Your task to perform on an android device: check battery use Image 0: 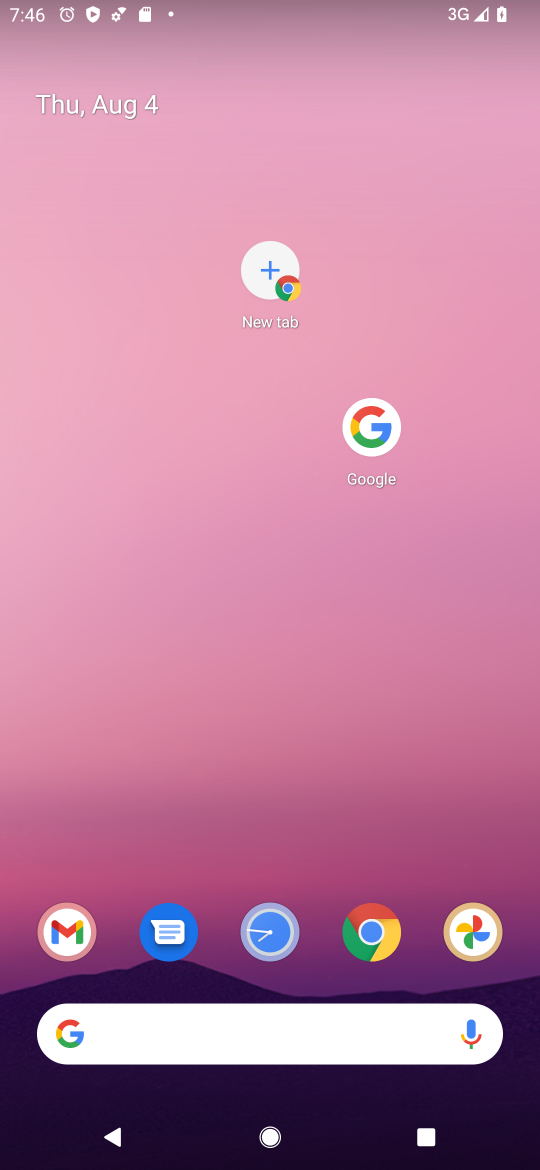
Step 0: click (503, 781)
Your task to perform on an android device: check battery use Image 1: 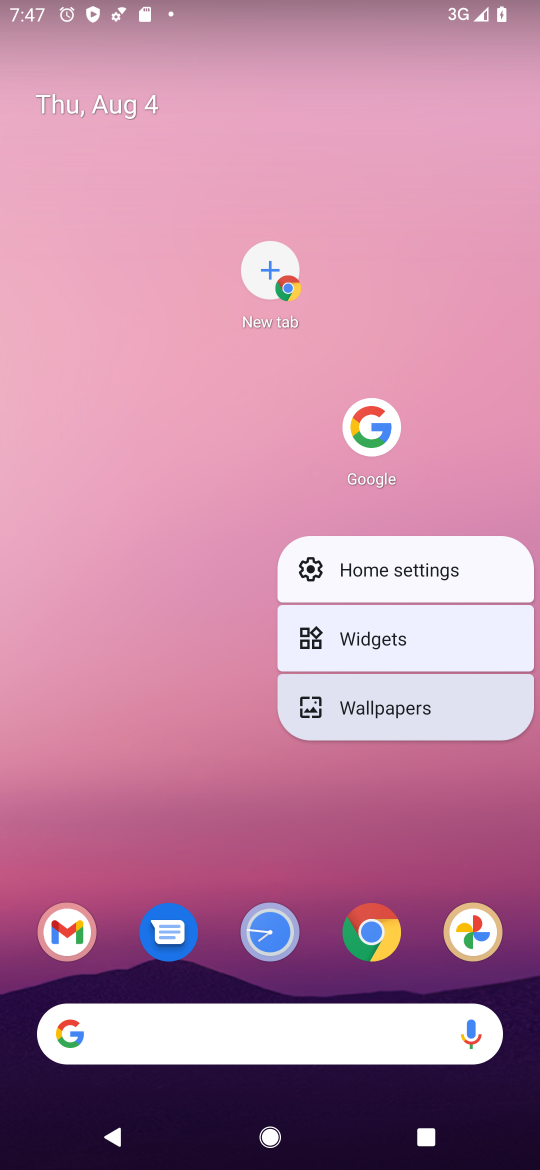
Step 1: drag from (374, 847) to (384, 45)
Your task to perform on an android device: check battery use Image 2: 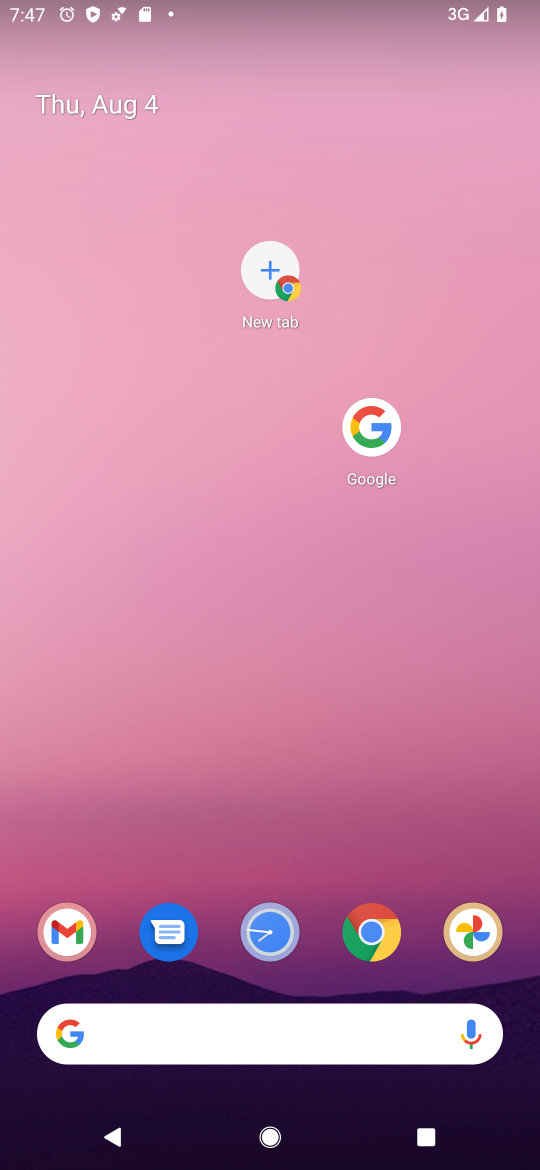
Step 2: drag from (151, 910) to (256, 534)
Your task to perform on an android device: check battery use Image 3: 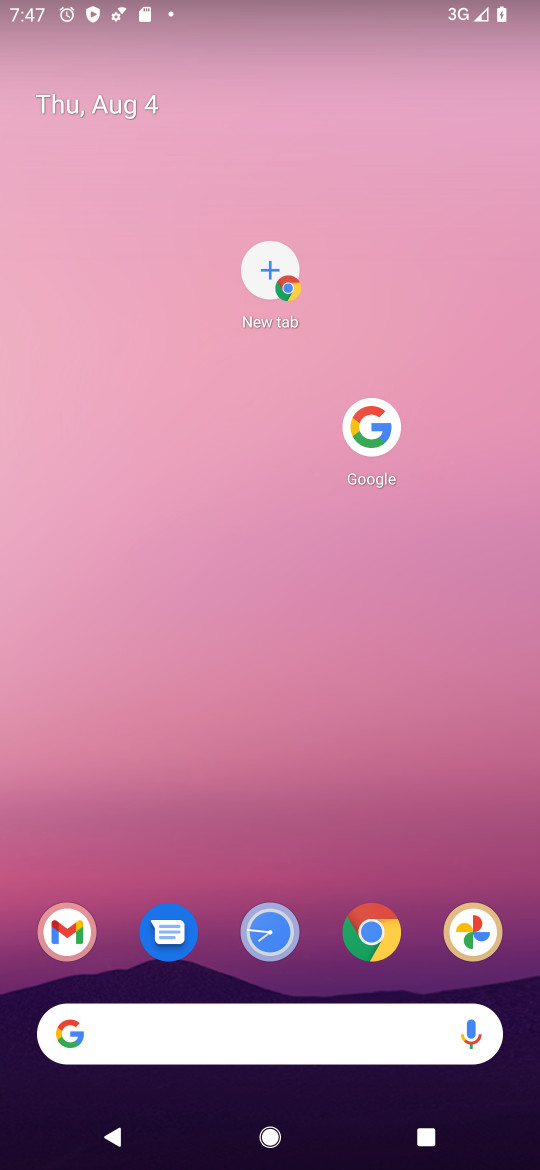
Step 3: drag from (377, 936) to (317, 380)
Your task to perform on an android device: check battery use Image 4: 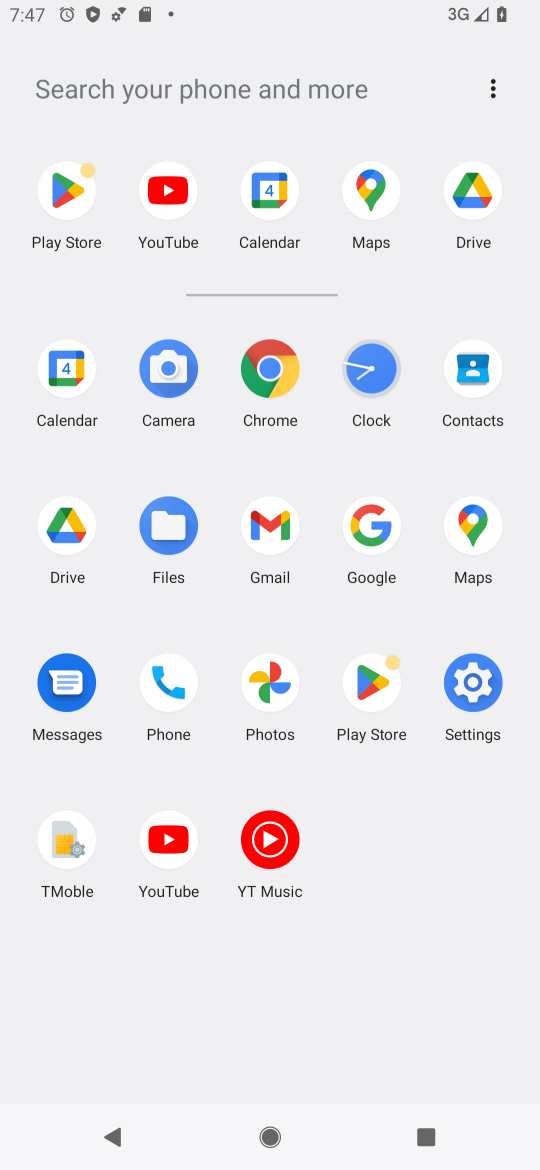
Step 4: drag from (278, 329) to (267, 235)
Your task to perform on an android device: check battery use Image 5: 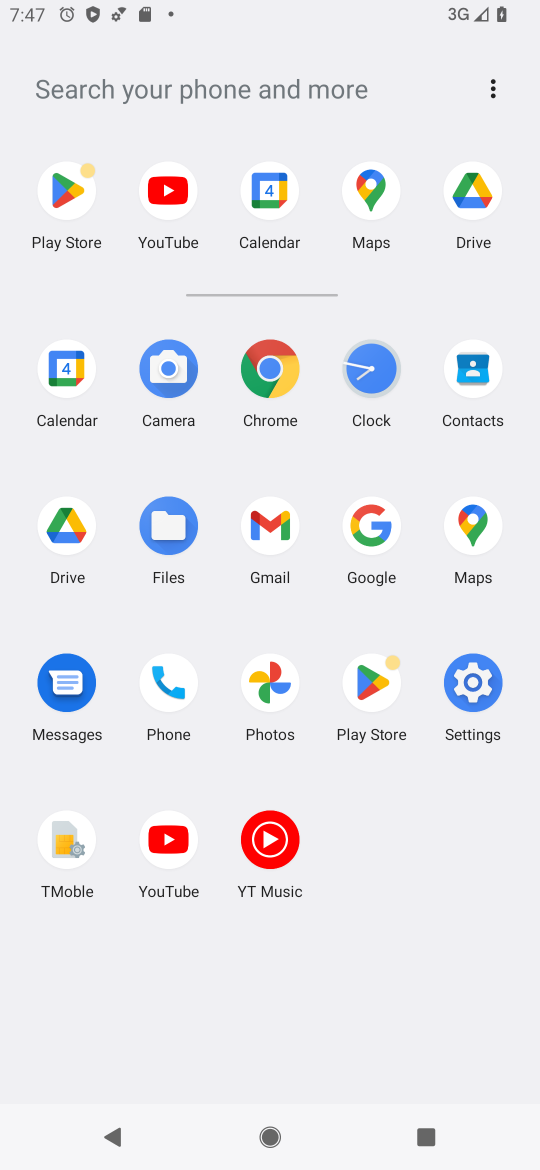
Step 5: click (465, 676)
Your task to perform on an android device: check battery use Image 6: 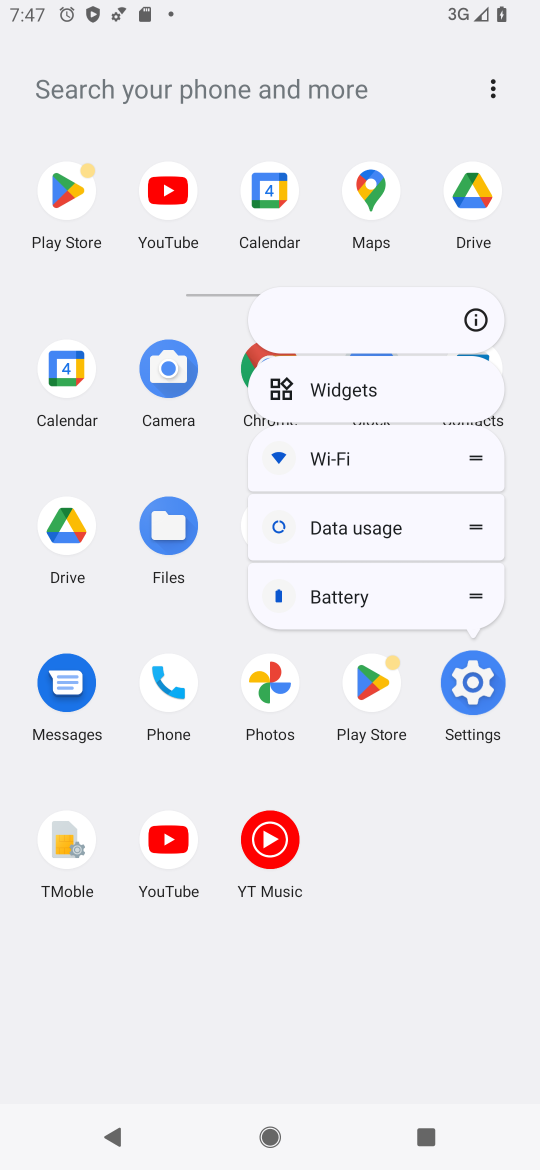
Step 6: click (473, 668)
Your task to perform on an android device: check battery use Image 7: 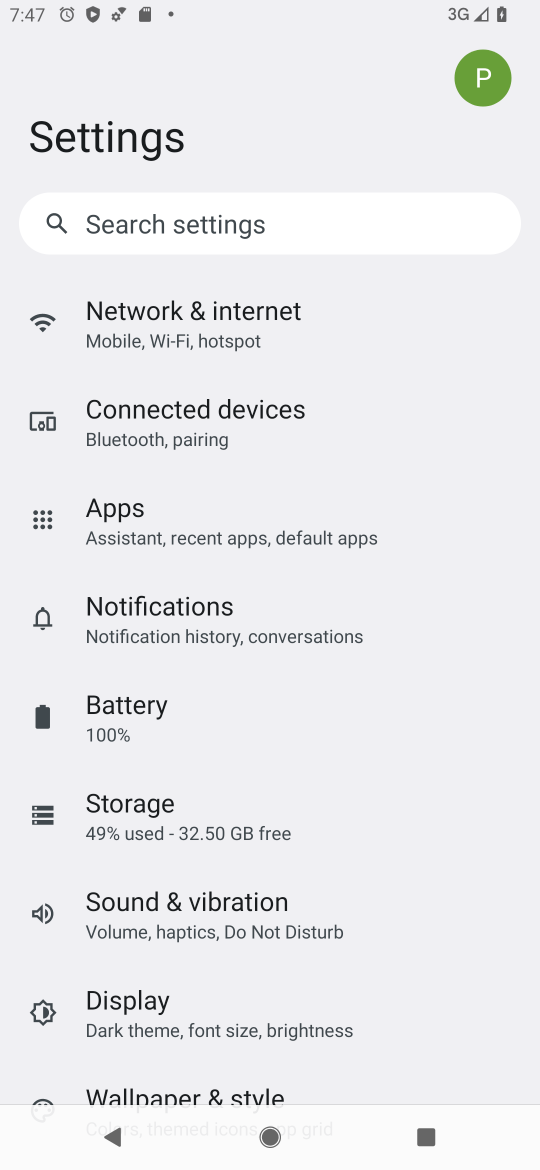
Step 7: click (294, 483)
Your task to perform on an android device: check battery use Image 8: 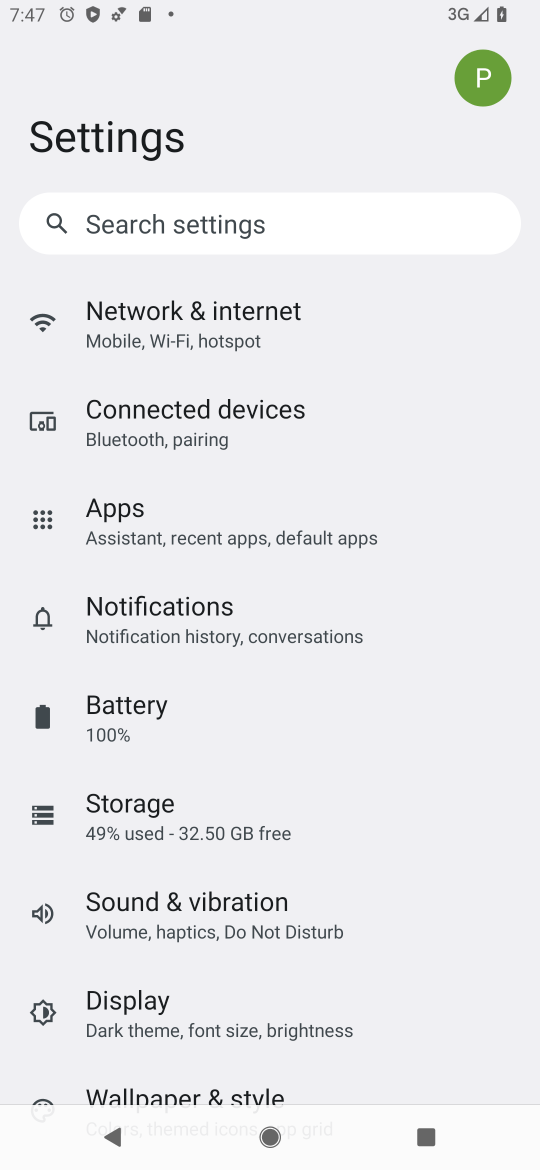
Step 8: drag from (352, 828) to (324, 474)
Your task to perform on an android device: check battery use Image 9: 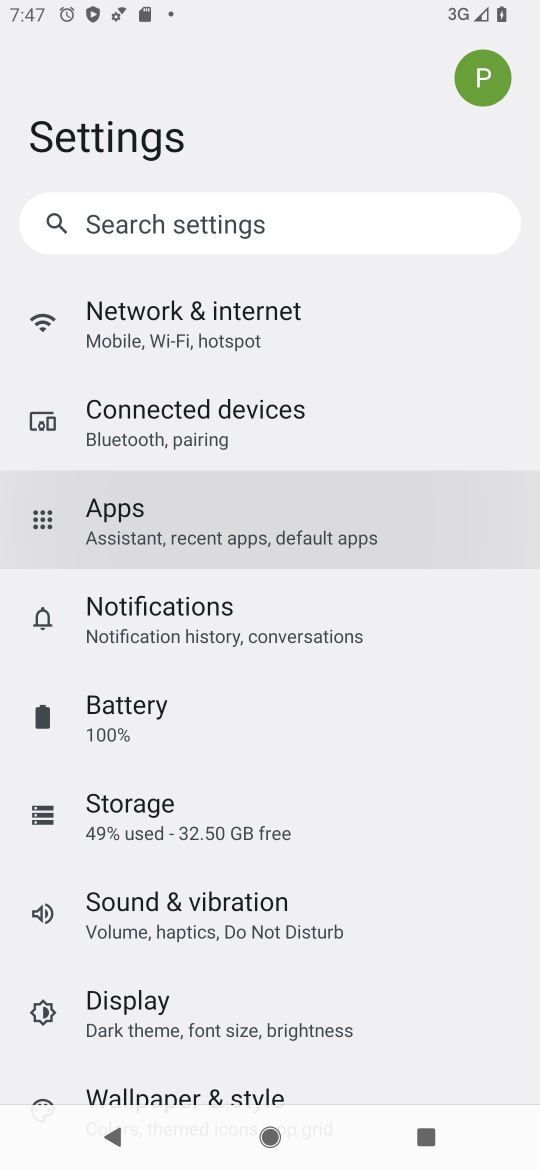
Step 9: click (266, 399)
Your task to perform on an android device: check battery use Image 10: 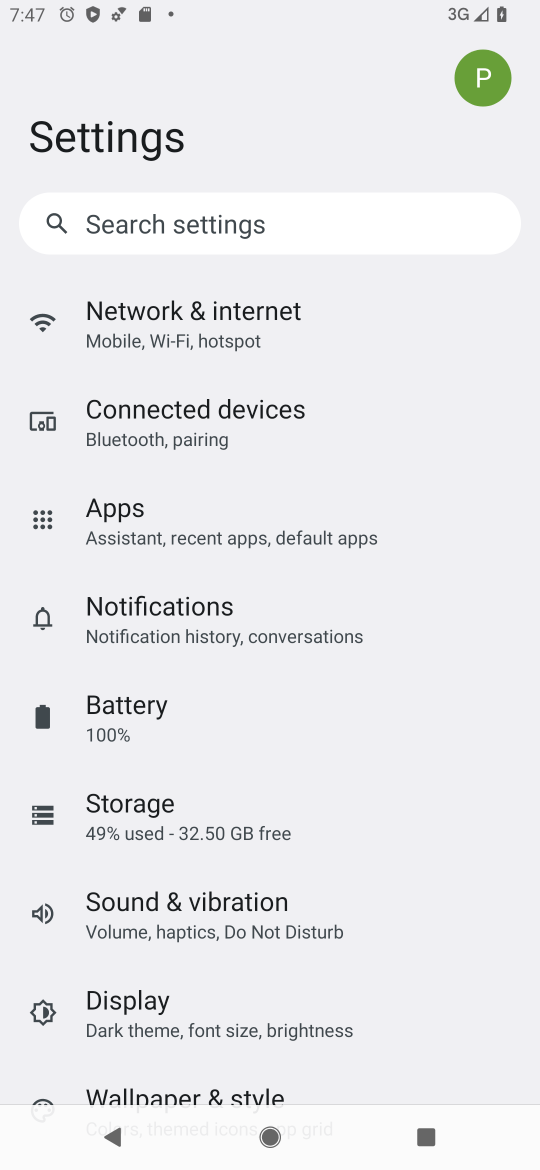
Step 10: drag from (387, 796) to (394, 332)
Your task to perform on an android device: check battery use Image 11: 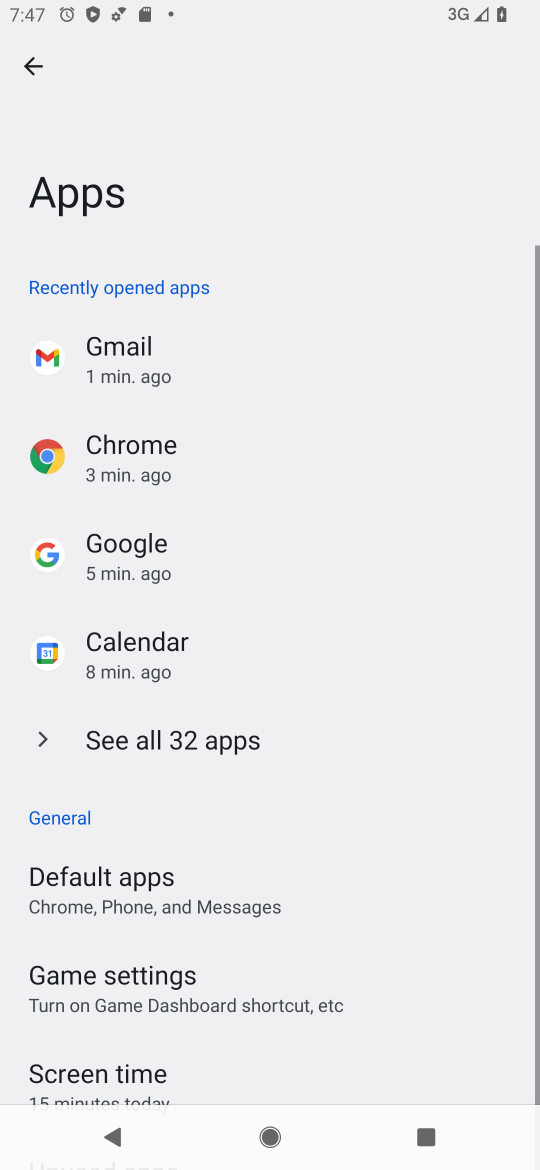
Step 11: click (322, 737)
Your task to perform on an android device: check battery use Image 12: 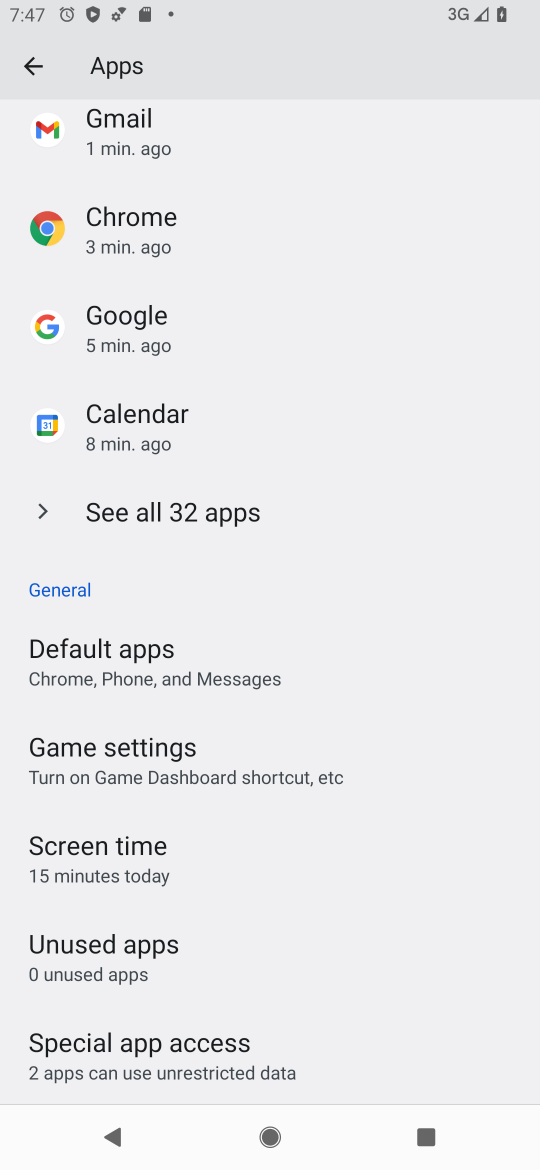
Step 12: drag from (172, 667) to (222, 1005)
Your task to perform on an android device: check battery use Image 13: 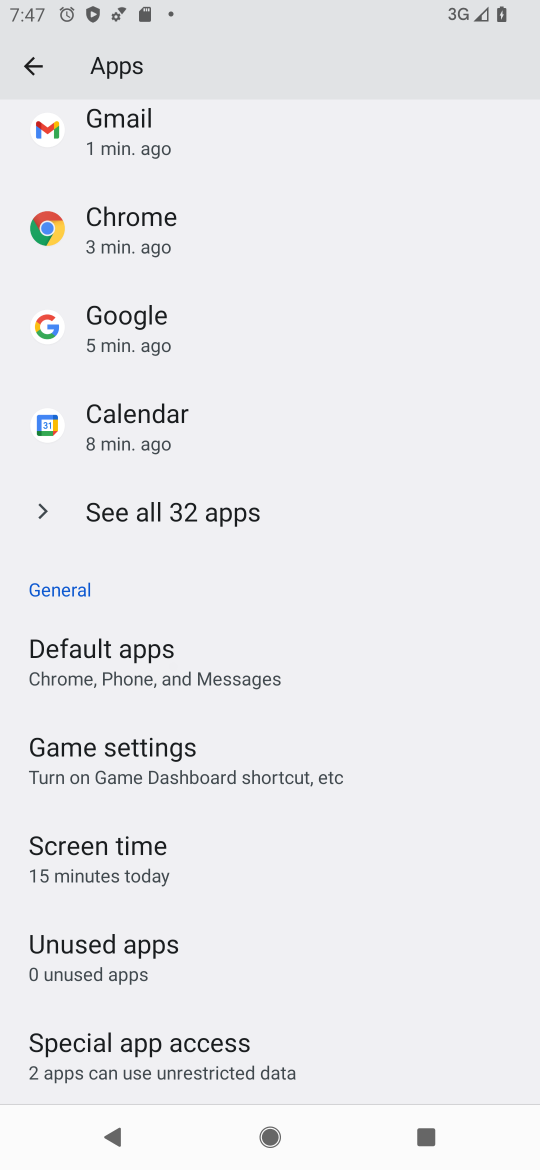
Step 13: click (212, 1016)
Your task to perform on an android device: check battery use Image 14: 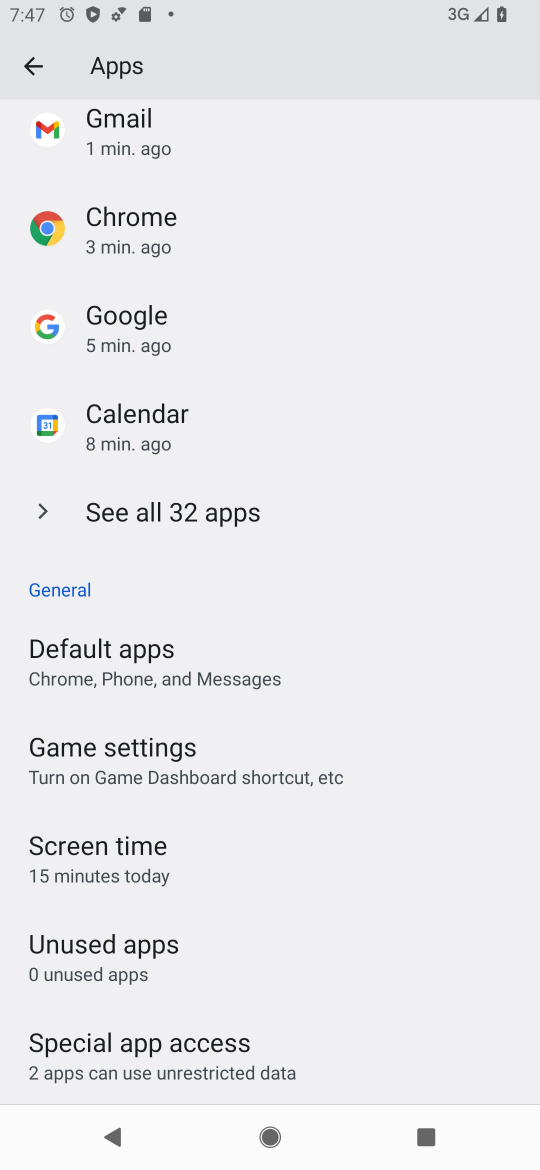
Step 14: click (225, 907)
Your task to perform on an android device: check battery use Image 15: 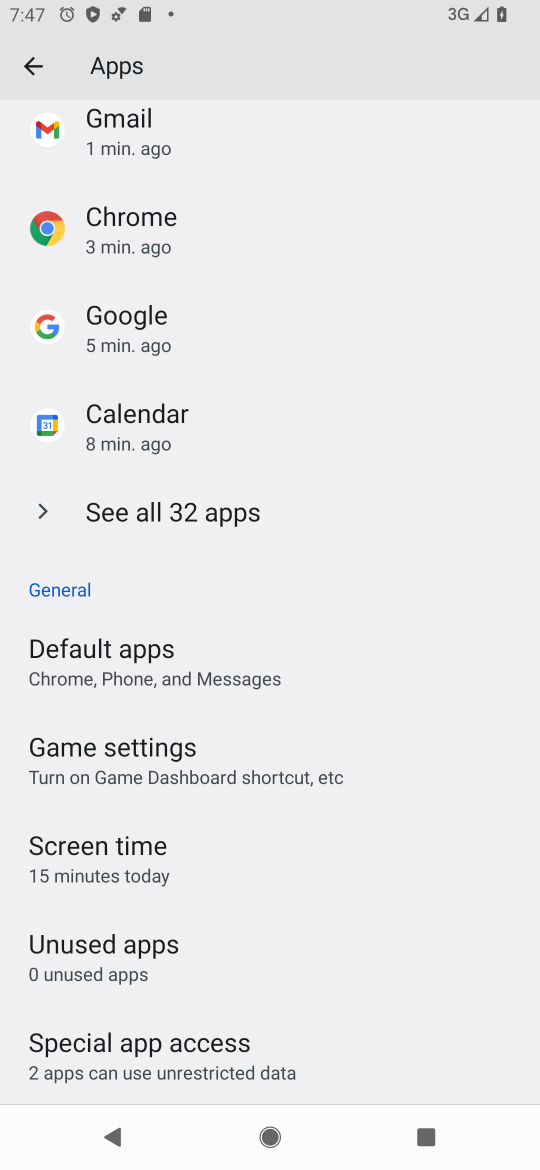
Step 15: drag from (238, 546) to (403, 958)
Your task to perform on an android device: check battery use Image 16: 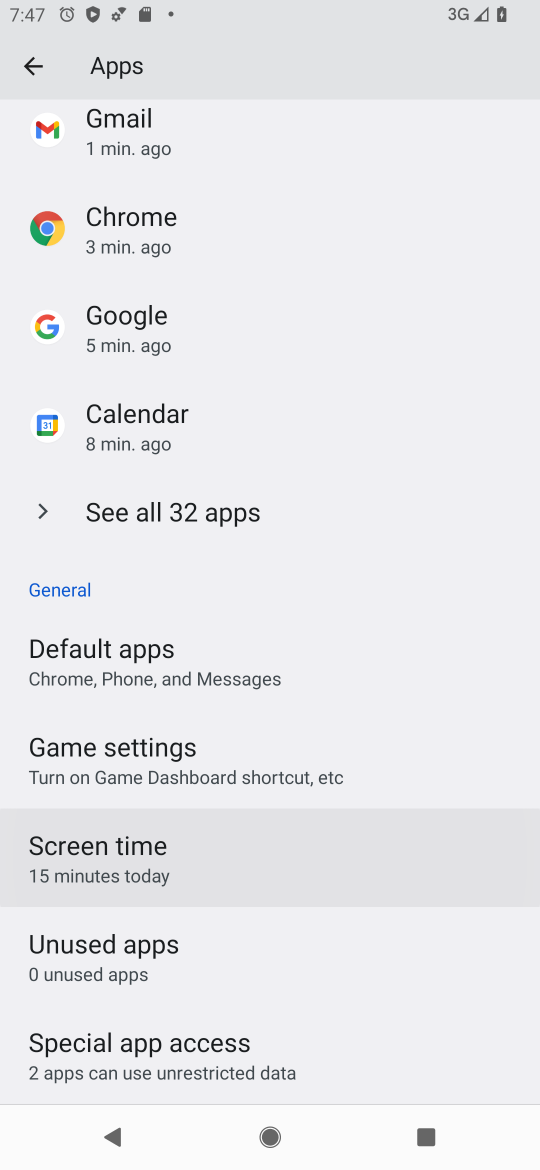
Step 16: drag from (202, 336) to (260, 859)
Your task to perform on an android device: check battery use Image 17: 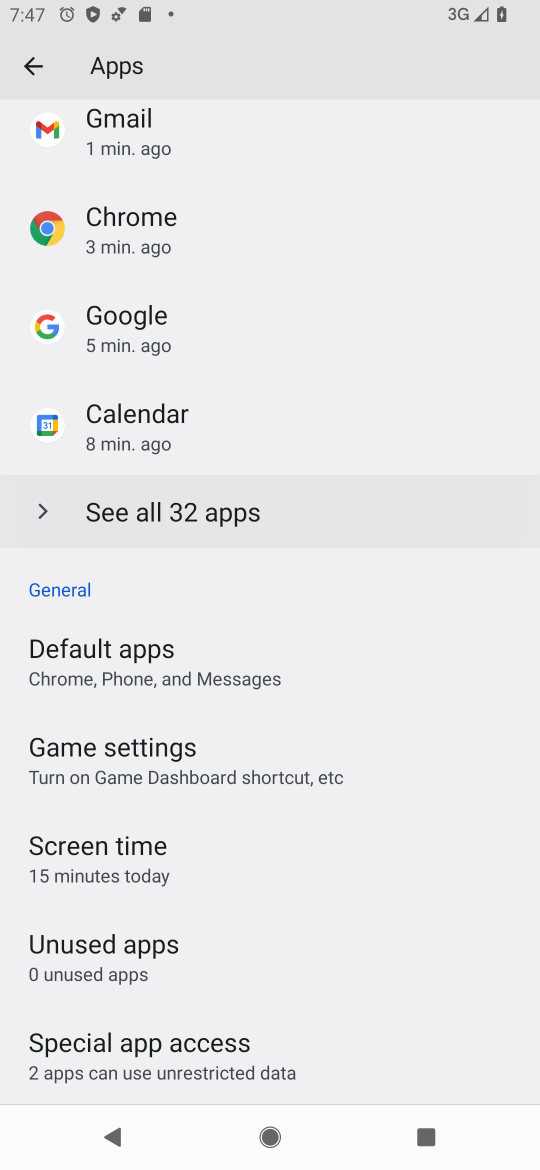
Step 17: drag from (241, 871) to (194, 930)
Your task to perform on an android device: check battery use Image 18: 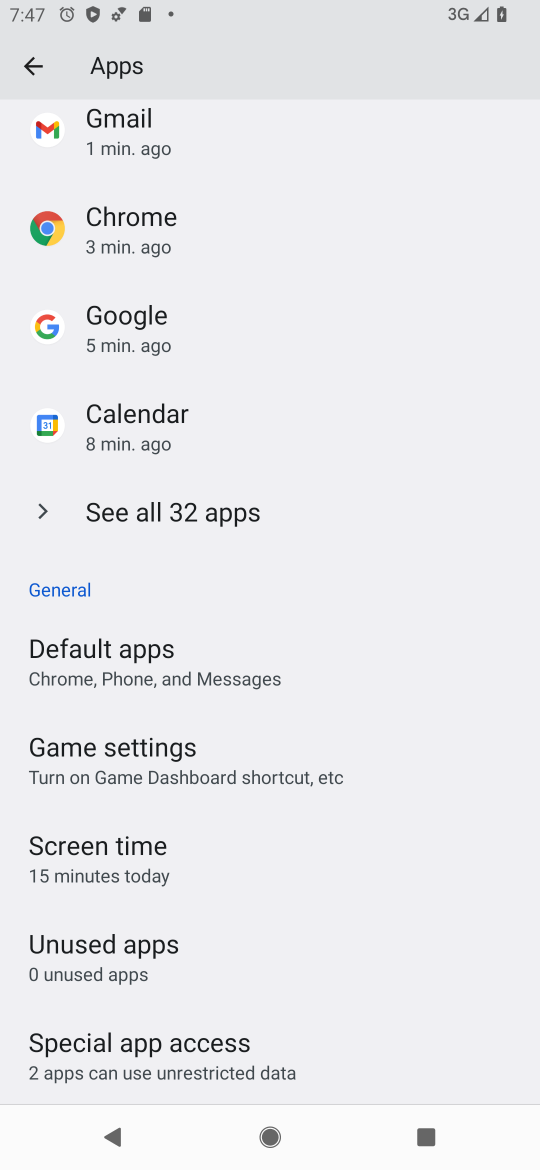
Step 18: click (186, 665)
Your task to perform on an android device: check battery use Image 19: 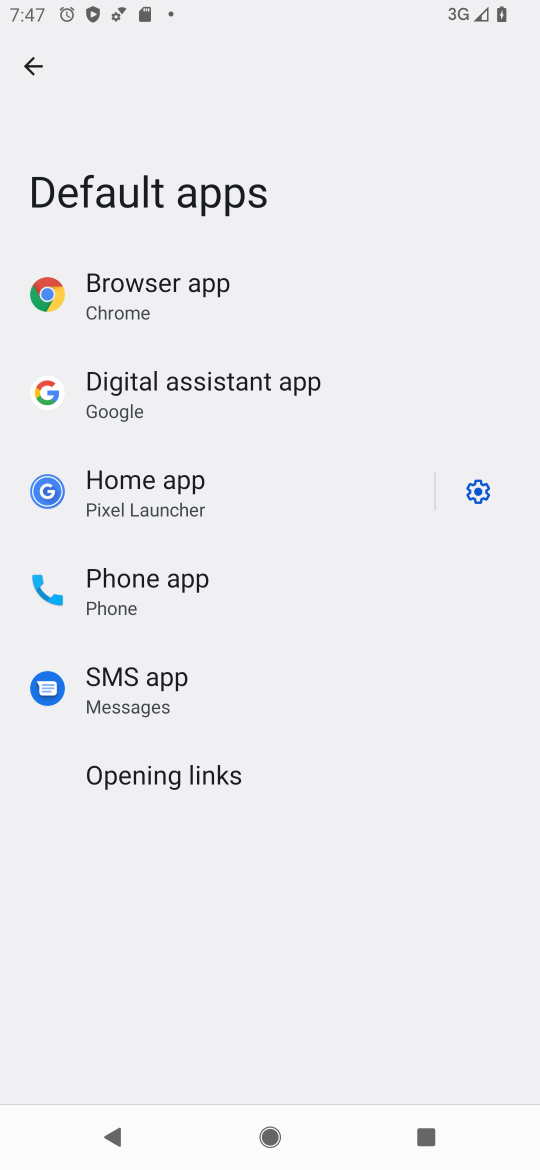
Step 19: click (30, 58)
Your task to perform on an android device: check battery use Image 20: 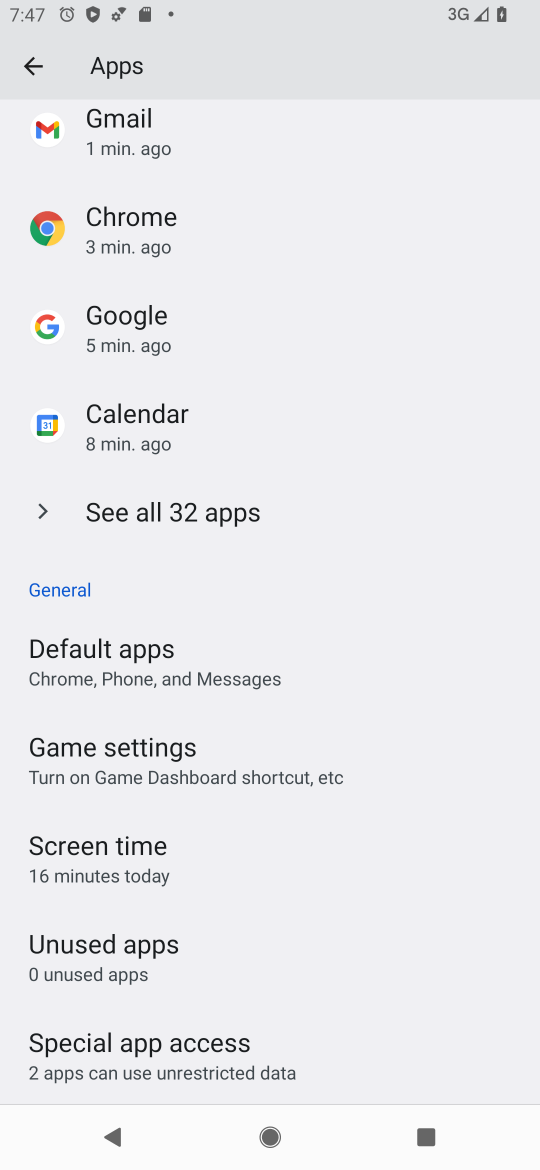
Step 20: drag from (42, 740) to (11, 492)
Your task to perform on an android device: check battery use Image 21: 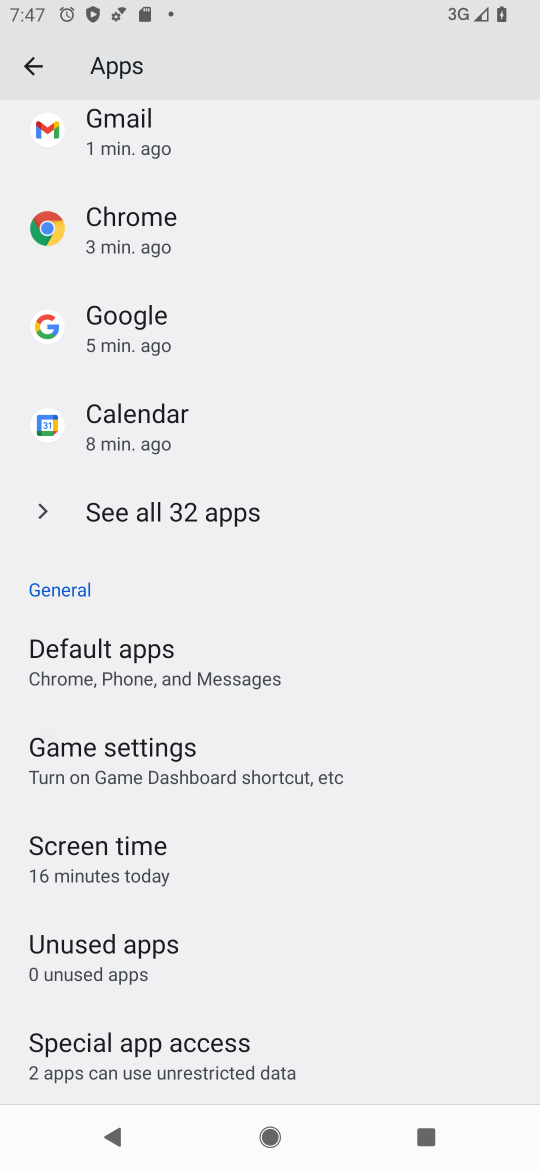
Step 21: drag from (133, 590) to (131, 434)
Your task to perform on an android device: check battery use Image 22: 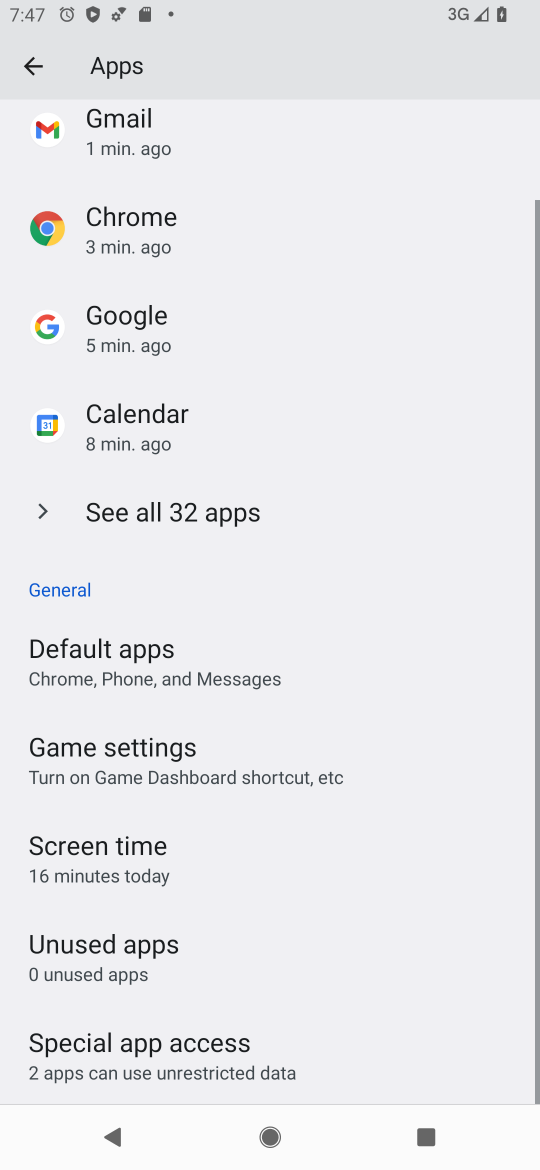
Step 22: drag from (149, 369) to (146, 795)
Your task to perform on an android device: check battery use Image 23: 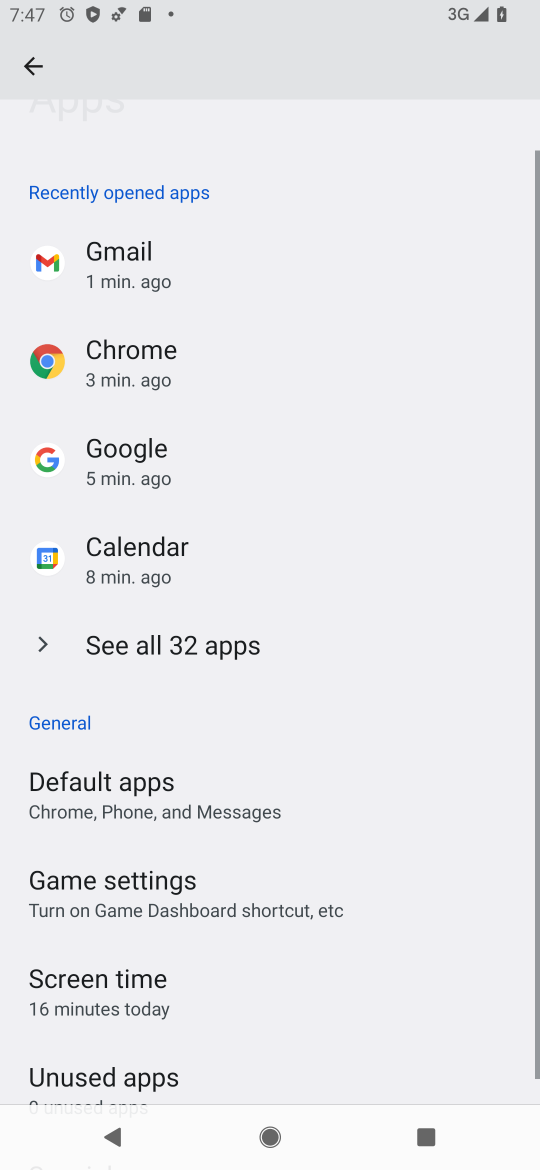
Step 23: drag from (157, 695) to (203, 885)
Your task to perform on an android device: check battery use Image 24: 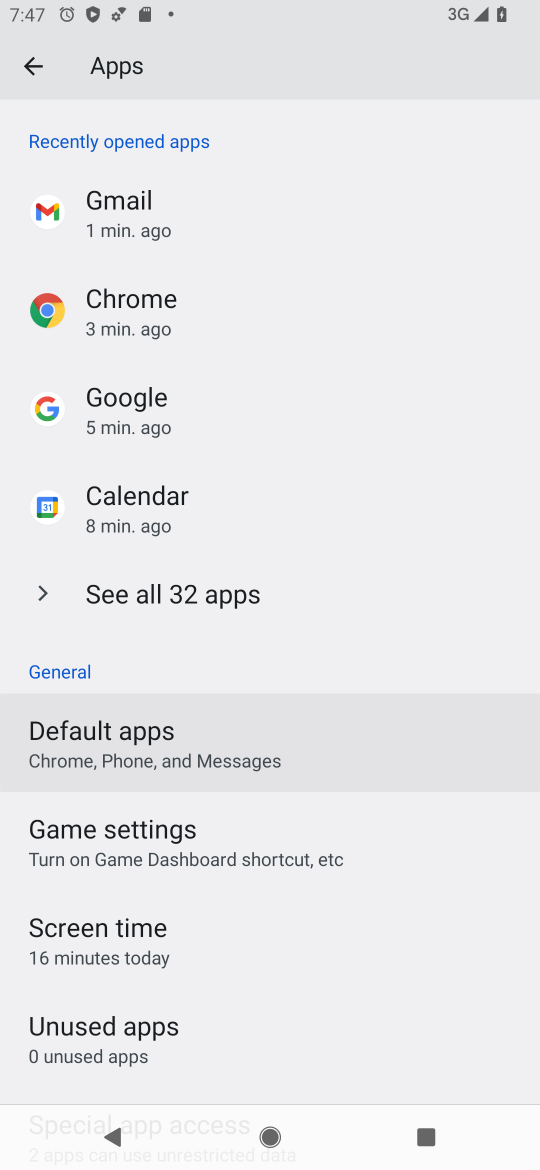
Step 24: drag from (170, 422) to (244, 1028)
Your task to perform on an android device: check battery use Image 25: 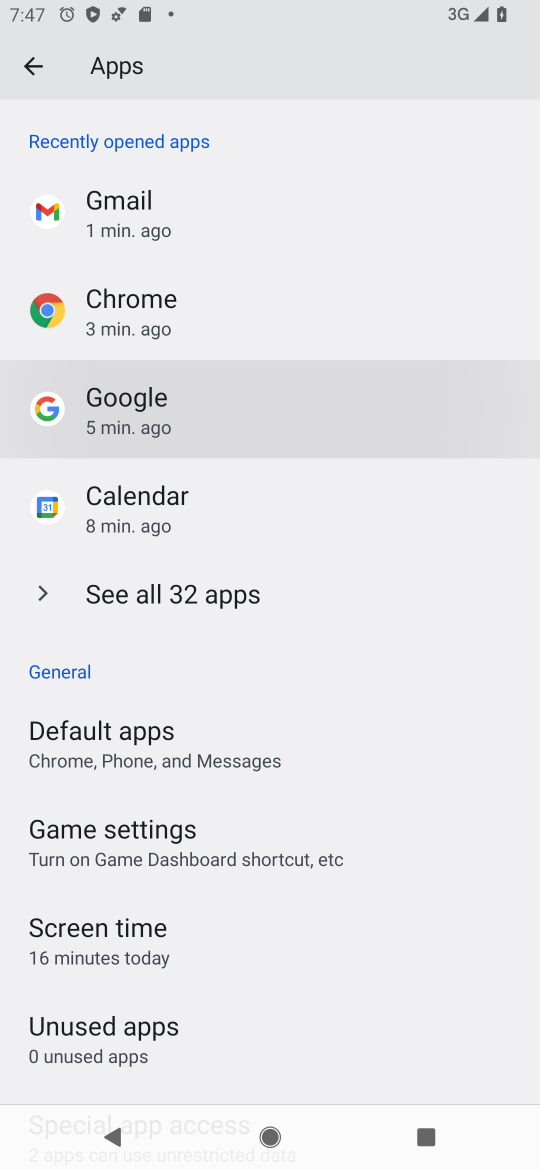
Step 25: click (29, 67)
Your task to perform on an android device: check battery use Image 26: 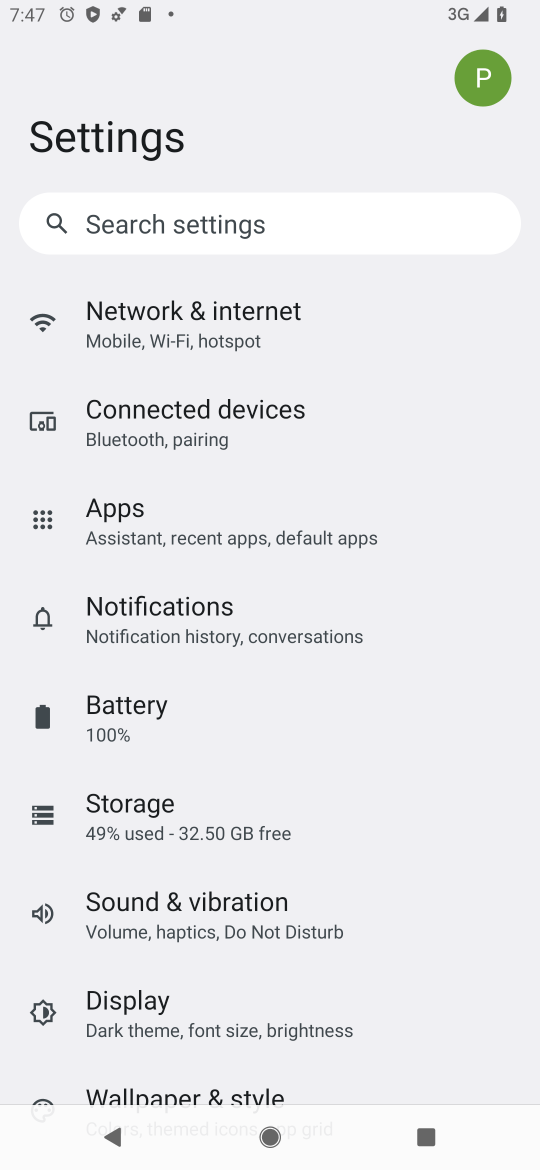
Step 26: click (107, 741)
Your task to perform on an android device: check battery use Image 27: 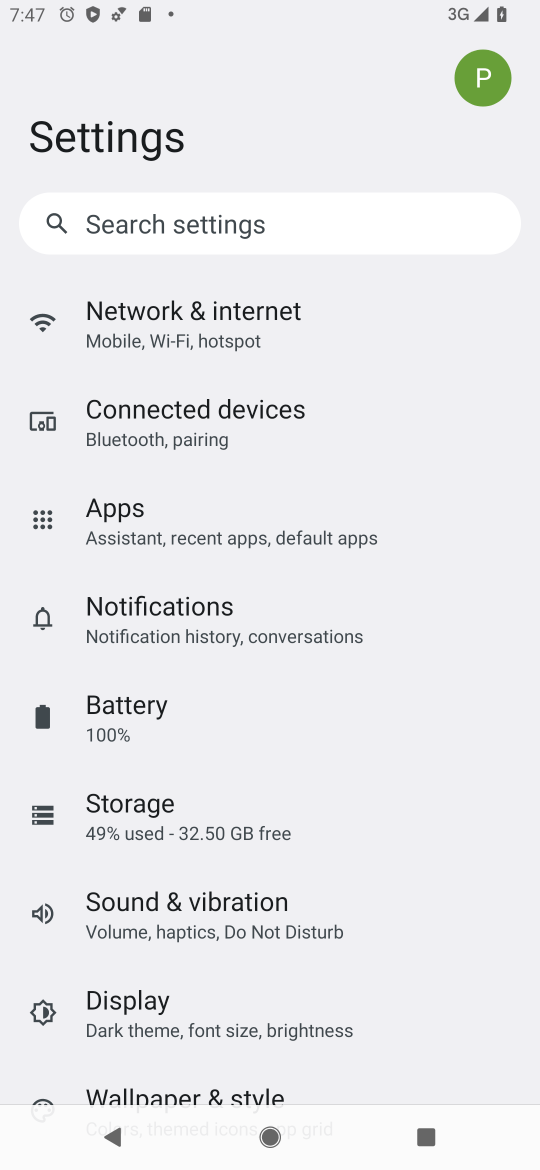
Step 27: task complete